Your task to perform on an android device: turn on wifi Image 0: 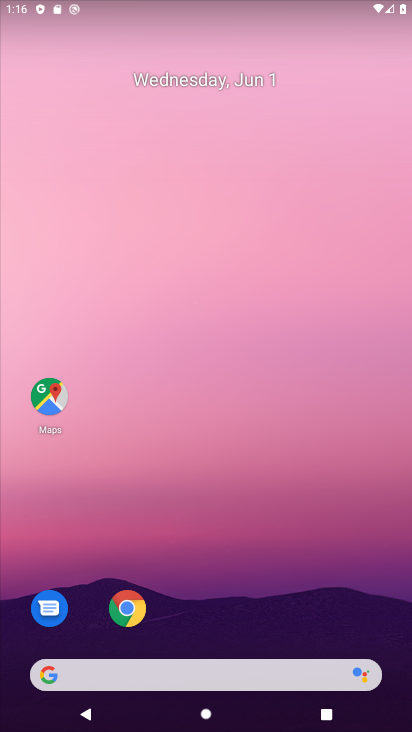
Step 0: drag from (210, 627) to (238, 191)
Your task to perform on an android device: turn on wifi Image 1: 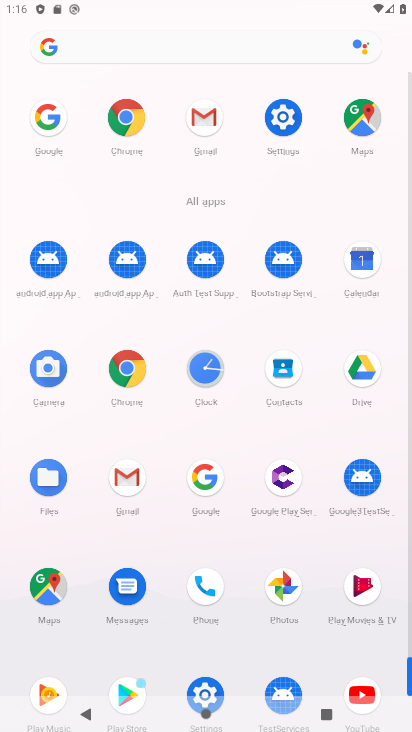
Step 1: click (285, 130)
Your task to perform on an android device: turn on wifi Image 2: 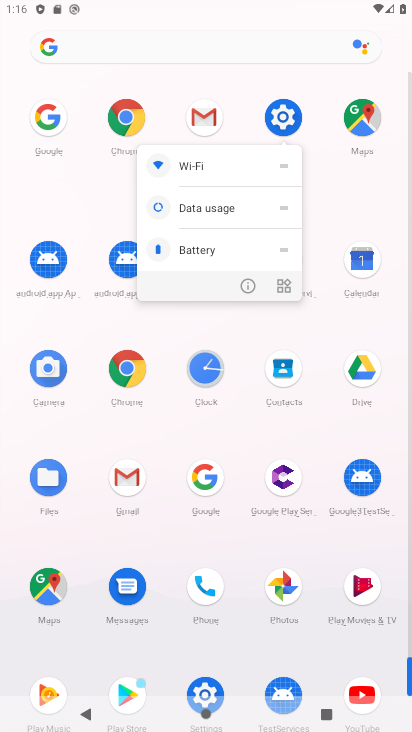
Step 2: click (279, 122)
Your task to perform on an android device: turn on wifi Image 3: 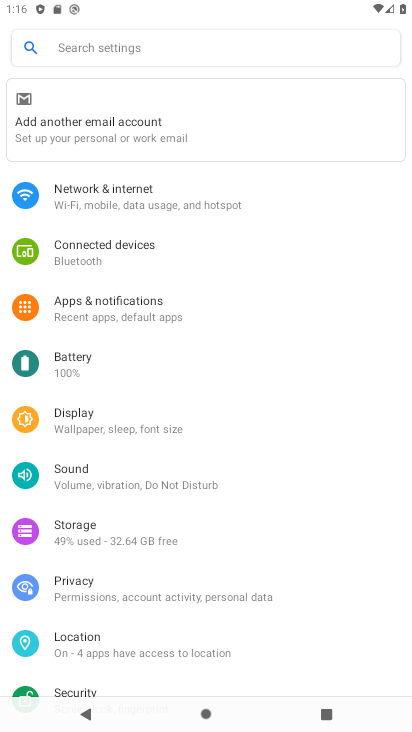
Step 3: click (134, 192)
Your task to perform on an android device: turn on wifi Image 4: 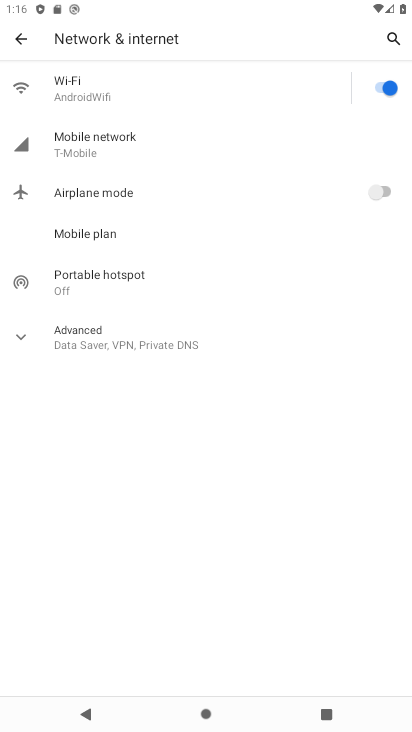
Step 4: task complete